Your task to perform on an android device: turn on notifications settings in the gmail app Image 0: 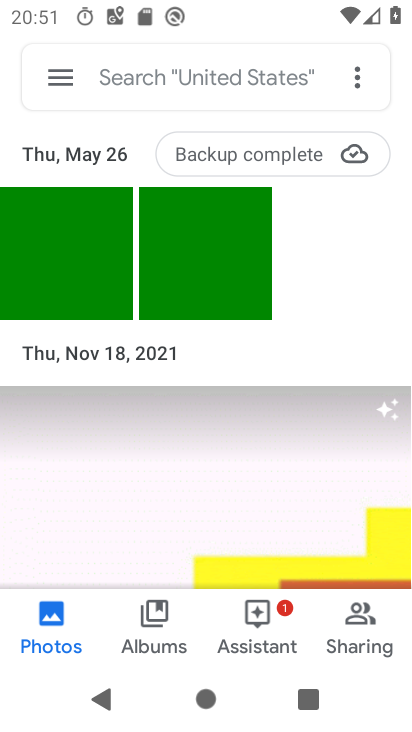
Step 0: press home button
Your task to perform on an android device: turn on notifications settings in the gmail app Image 1: 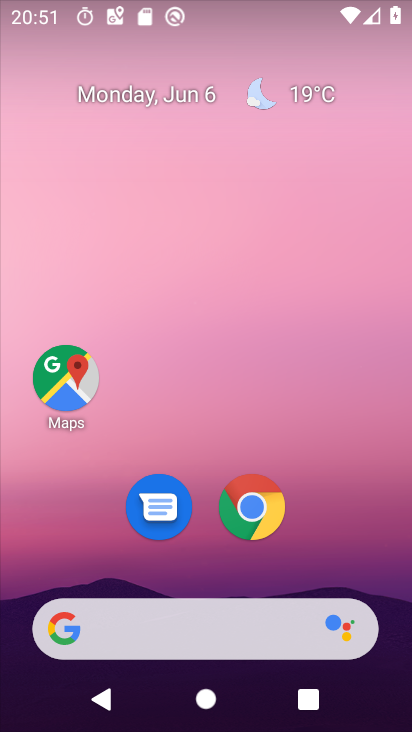
Step 1: drag from (342, 610) to (324, 37)
Your task to perform on an android device: turn on notifications settings in the gmail app Image 2: 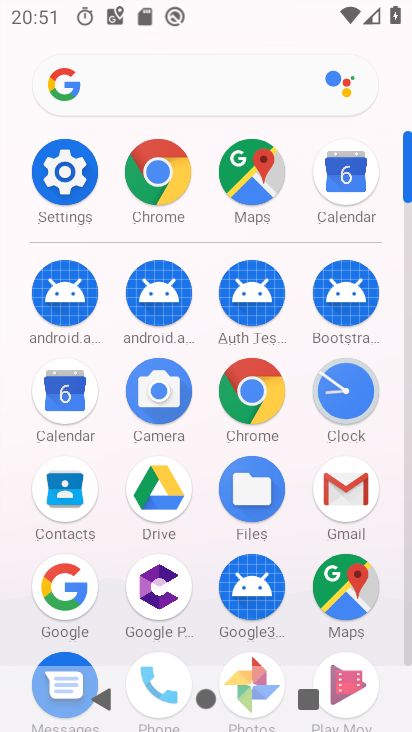
Step 2: click (343, 504)
Your task to perform on an android device: turn on notifications settings in the gmail app Image 3: 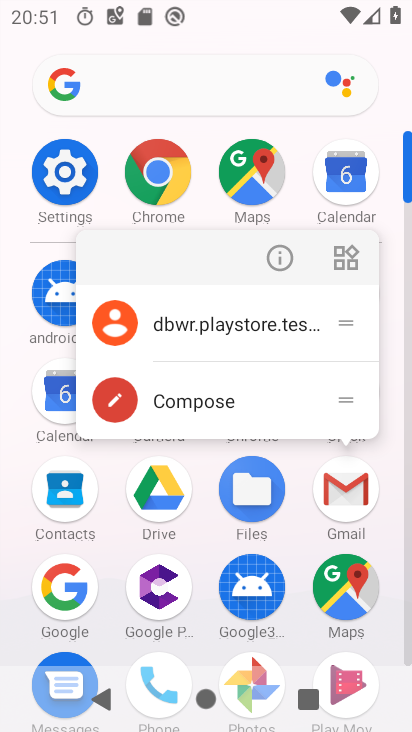
Step 3: click (284, 237)
Your task to perform on an android device: turn on notifications settings in the gmail app Image 4: 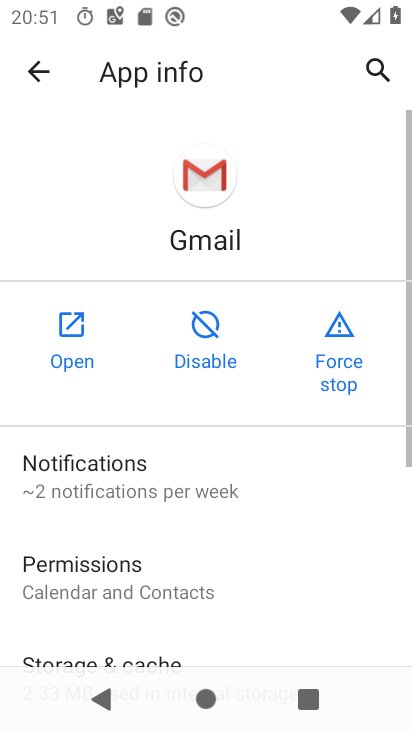
Step 4: click (84, 475)
Your task to perform on an android device: turn on notifications settings in the gmail app Image 5: 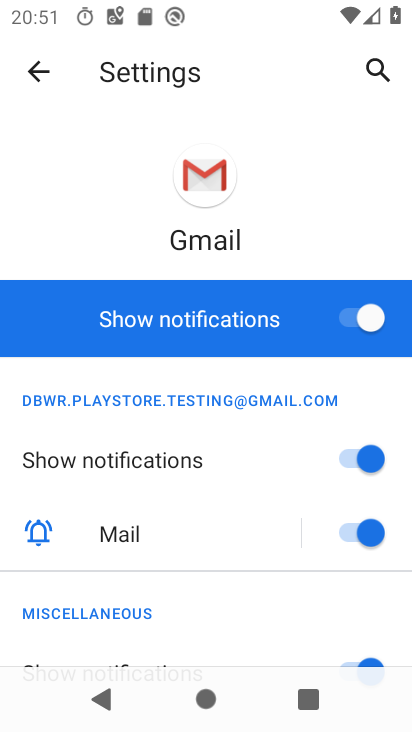
Step 5: task complete